Your task to perform on an android device: Open the Play Movies app and select the watchlist tab. Image 0: 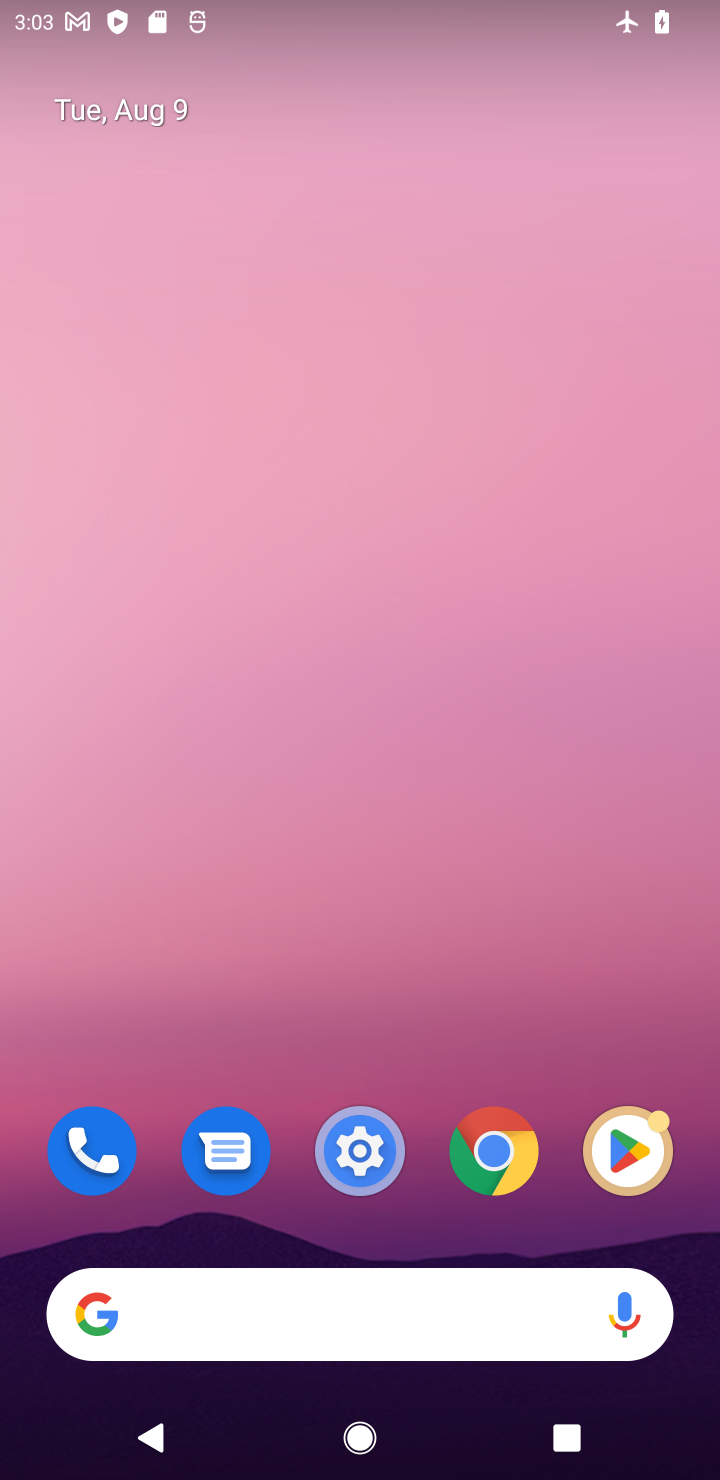
Step 0: drag from (460, 1407) to (558, 637)
Your task to perform on an android device: Open the Play Movies app and select the watchlist tab. Image 1: 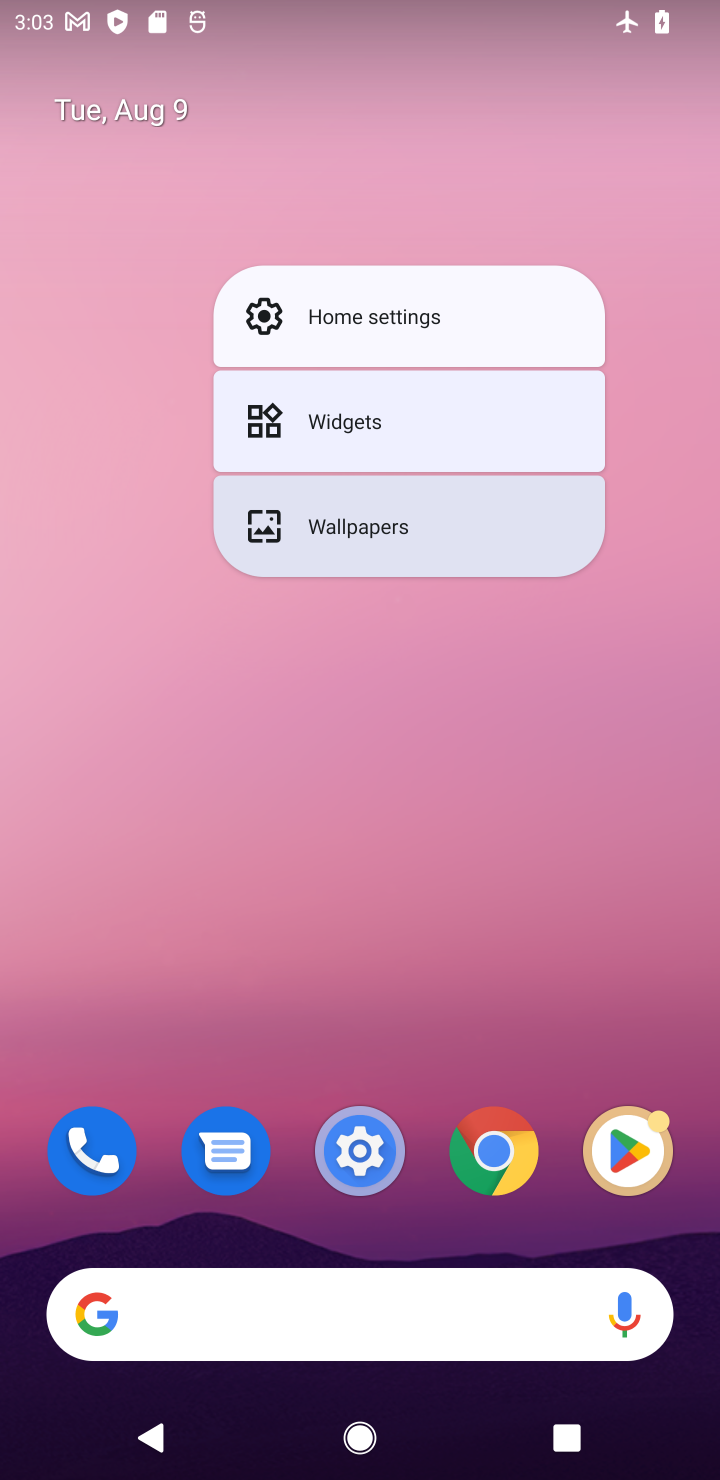
Step 1: drag from (416, 1435) to (555, 527)
Your task to perform on an android device: Open the Play Movies app and select the watchlist tab. Image 2: 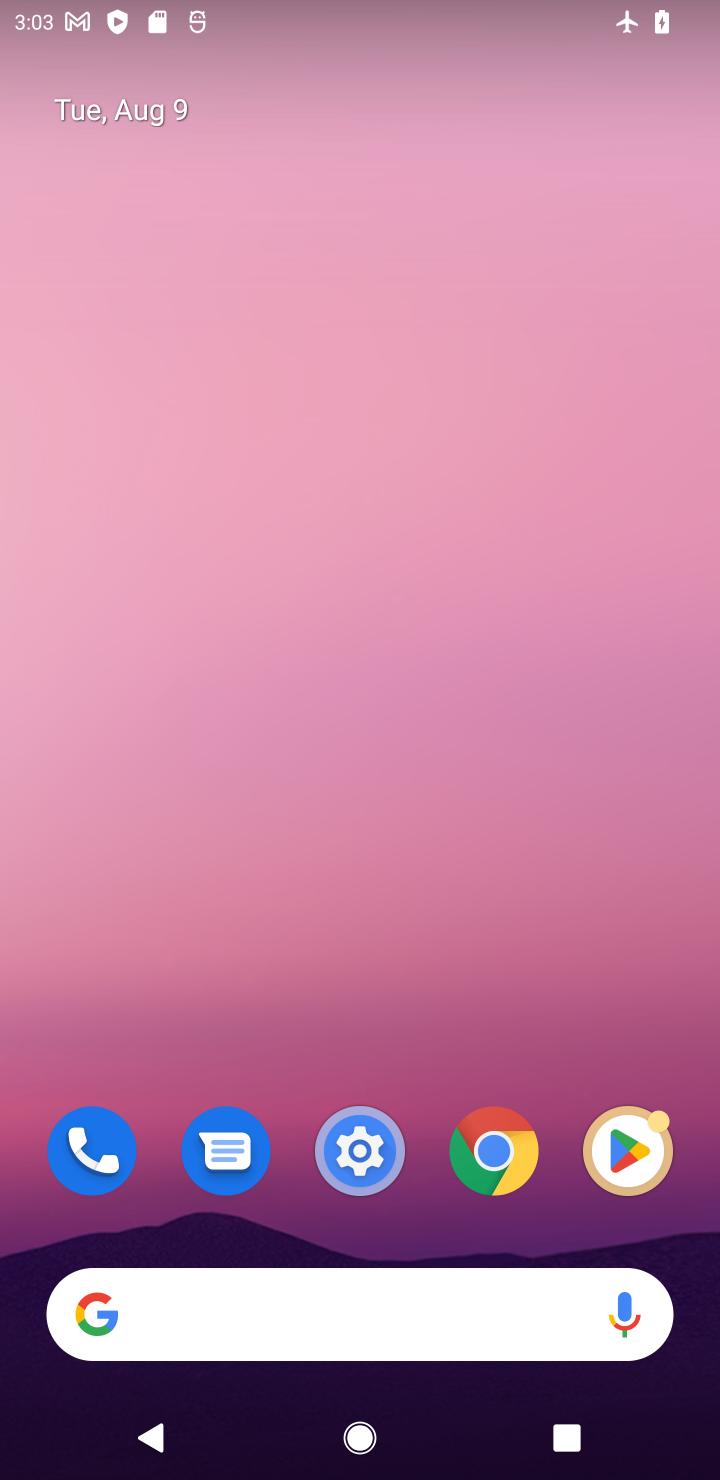
Step 2: drag from (257, 1409) to (302, 549)
Your task to perform on an android device: Open the Play Movies app and select the watchlist tab. Image 3: 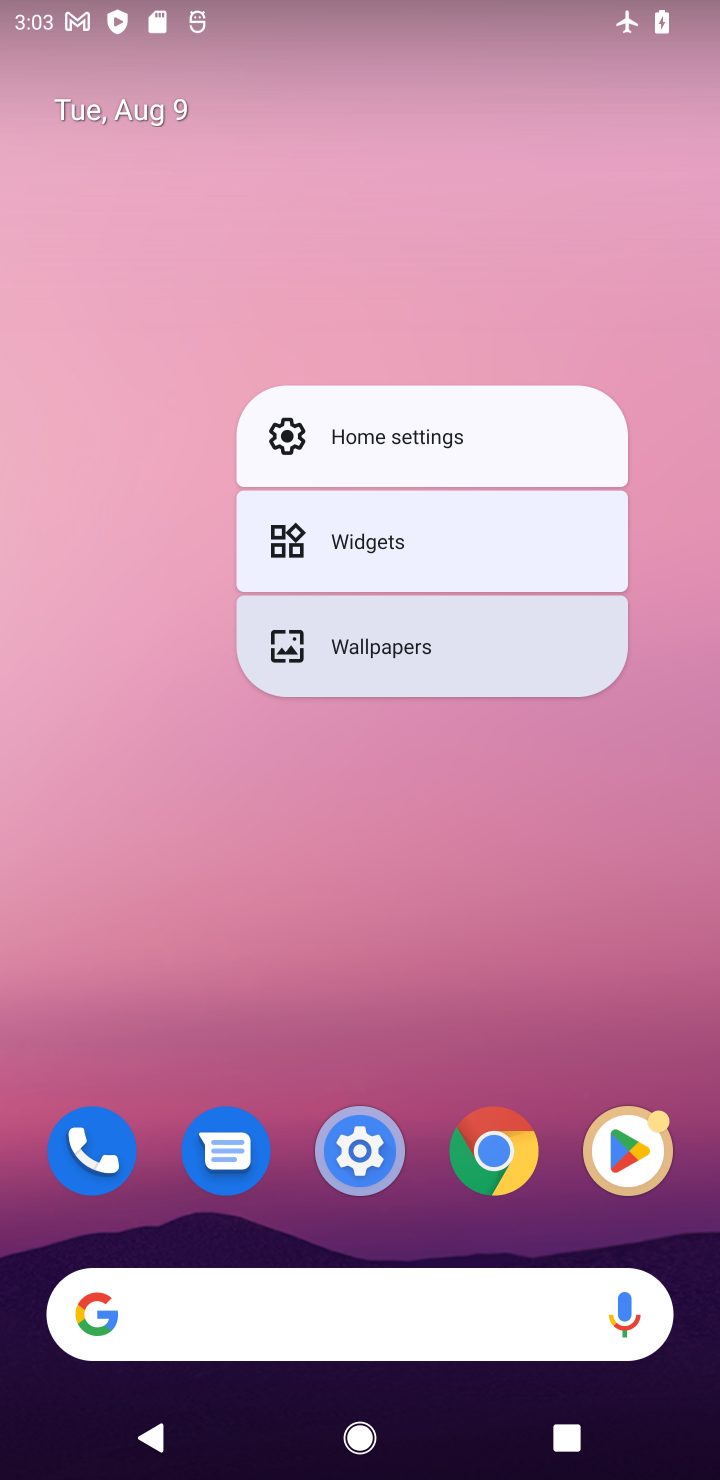
Step 3: drag from (304, 1327) to (331, 709)
Your task to perform on an android device: Open the Play Movies app and select the watchlist tab. Image 4: 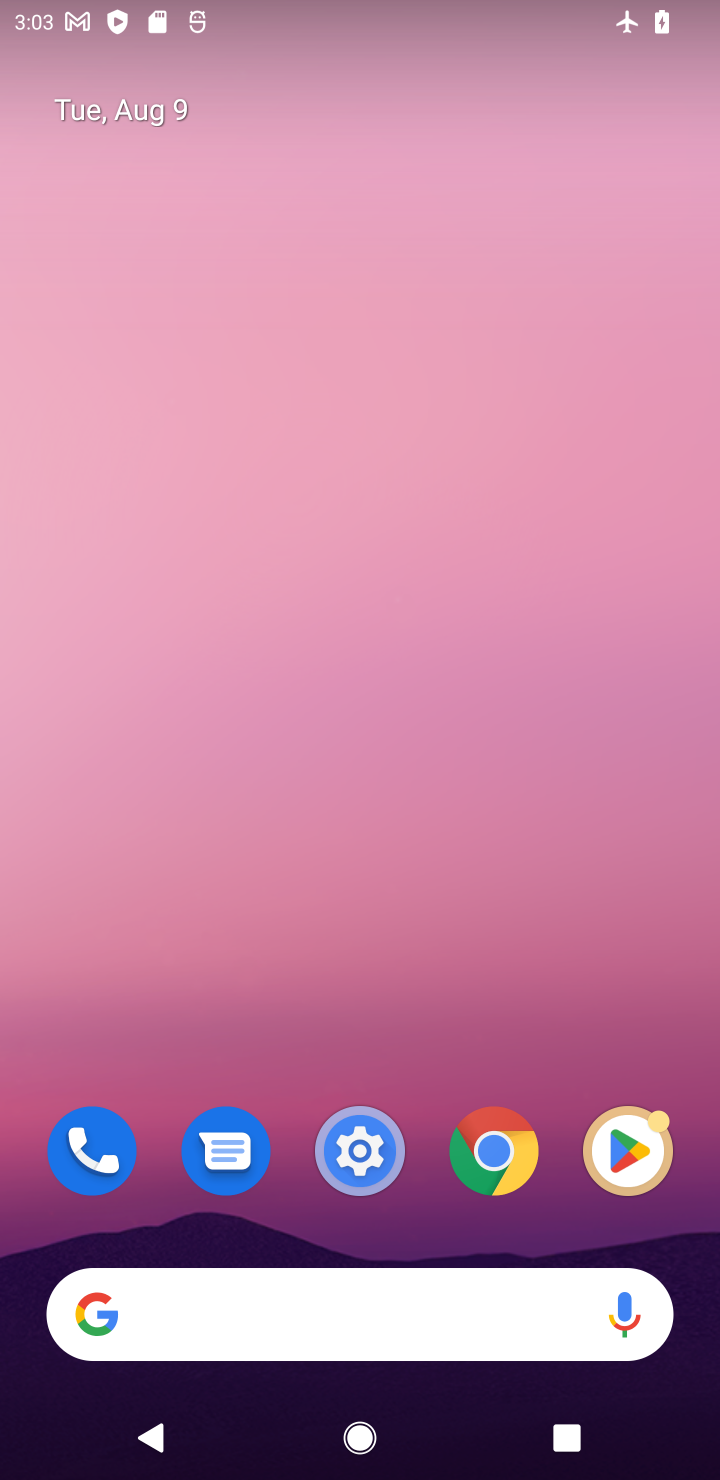
Step 4: drag from (453, 1126) to (488, 322)
Your task to perform on an android device: Open the Play Movies app and select the watchlist tab. Image 5: 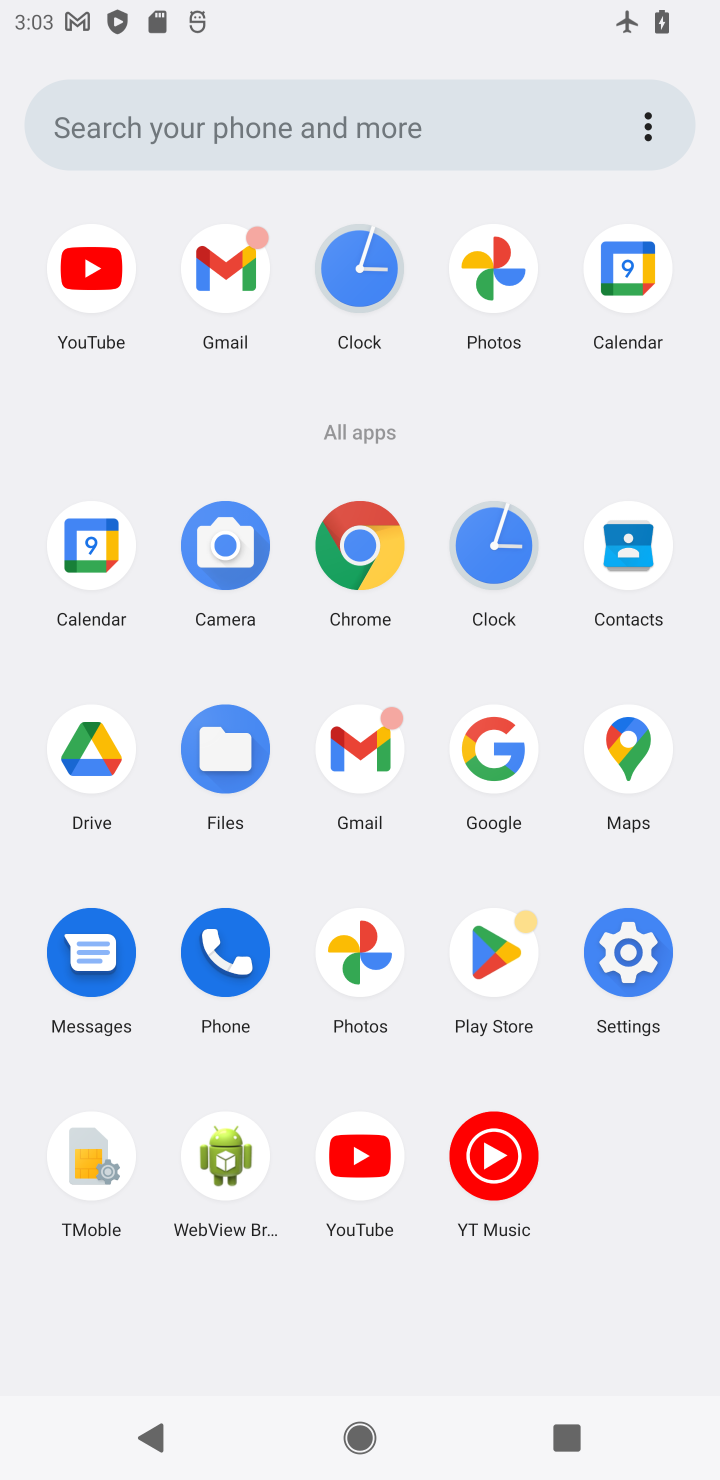
Step 5: click (464, 973)
Your task to perform on an android device: Open the Play Movies app and select the watchlist tab. Image 6: 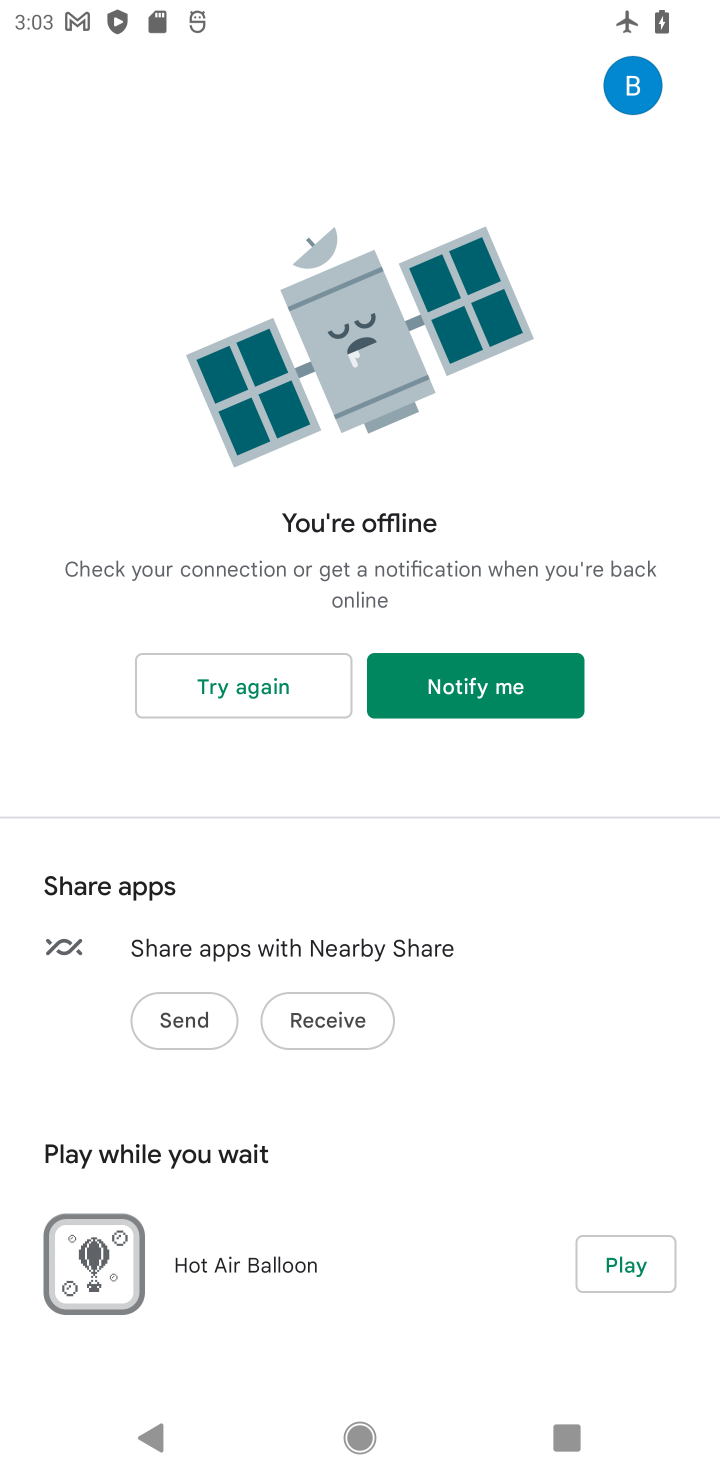
Step 6: click (247, 689)
Your task to perform on an android device: Open the Play Movies app and select the watchlist tab. Image 7: 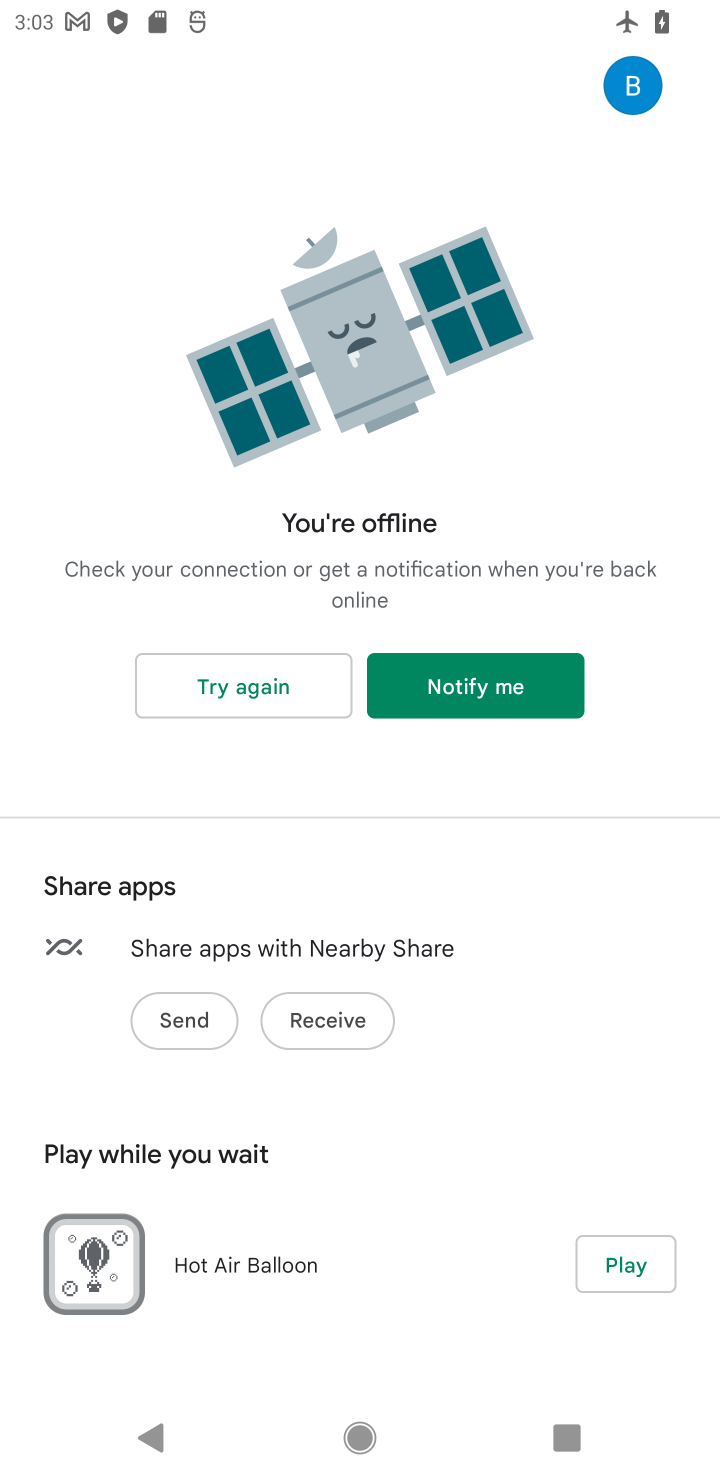
Step 7: task complete